Your task to perform on an android device: Open Youtube and go to the subscriptions tab Image 0: 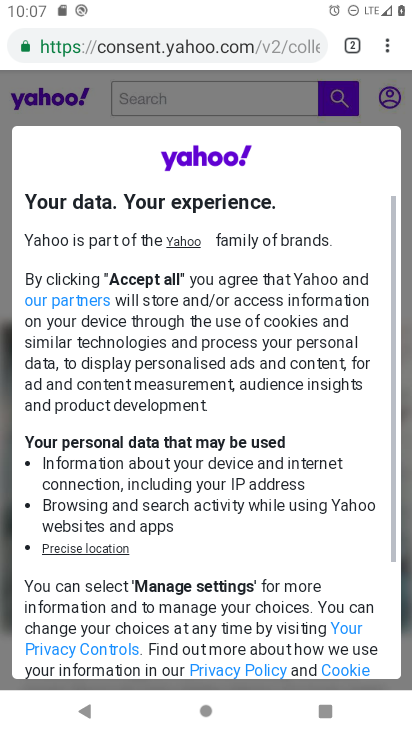
Step 0: press home button
Your task to perform on an android device: Open Youtube and go to the subscriptions tab Image 1: 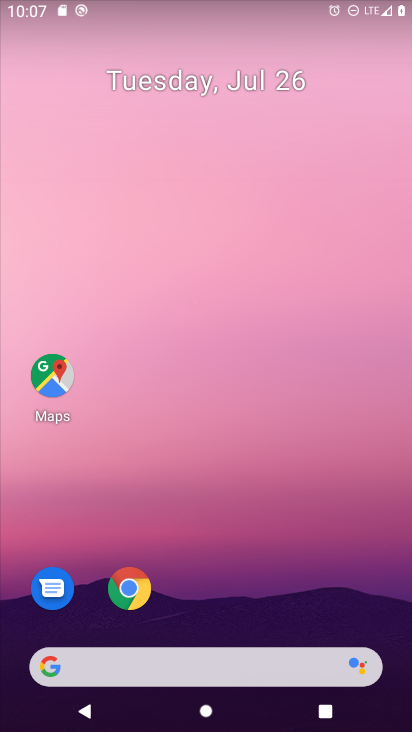
Step 1: drag from (169, 634) to (225, 150)
Your task to perform on an android device: Open Youtube and go to the subscriptions tab Image 2: 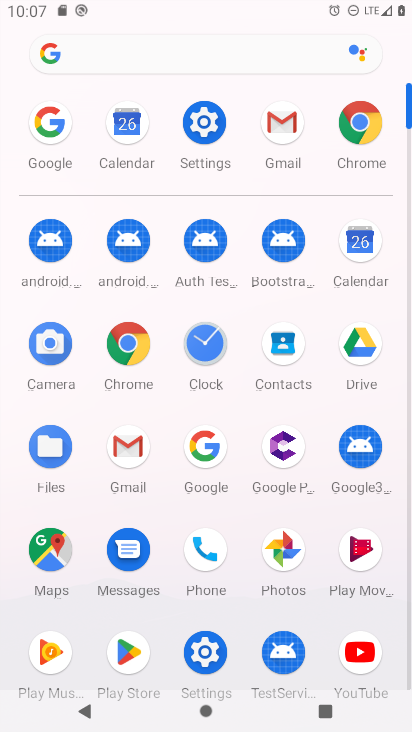
Step 2: click (358, 655)
Your task to perform on an android device: Open Youtube and go to the subscriptions tab Image 3: 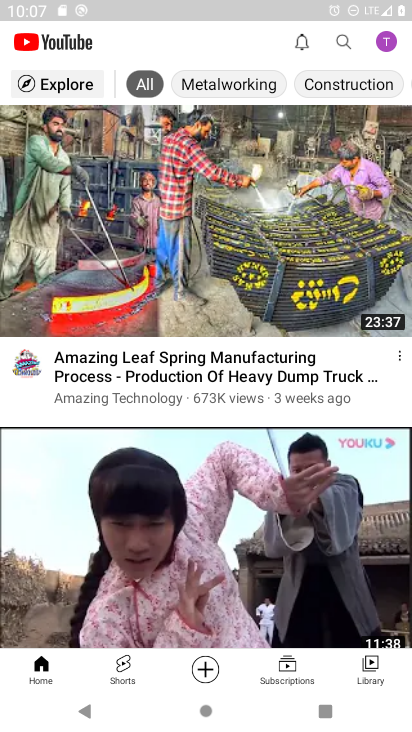
Step 3: click (295, 672)
Your task to perform on an android device: Open Youtube and go to the subscriptions tab Image 4: 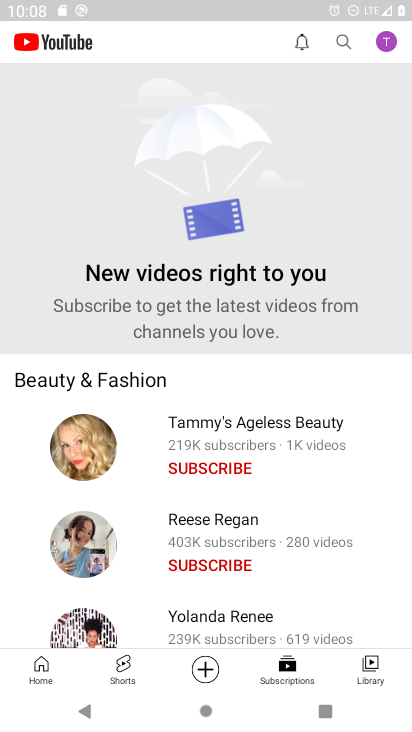
Step 4: task complete